Your task to perform on an android device: see sites visited before in the chrome app Image 0: 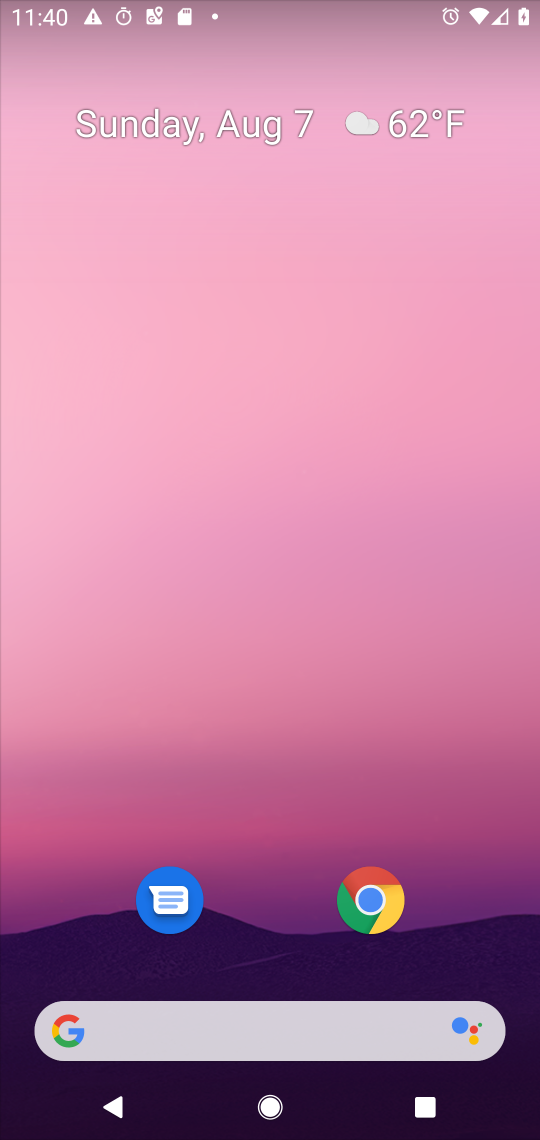
Step 0: press home button
Your task to perform on an android device: see sites visited before in the chrome app Image 1: 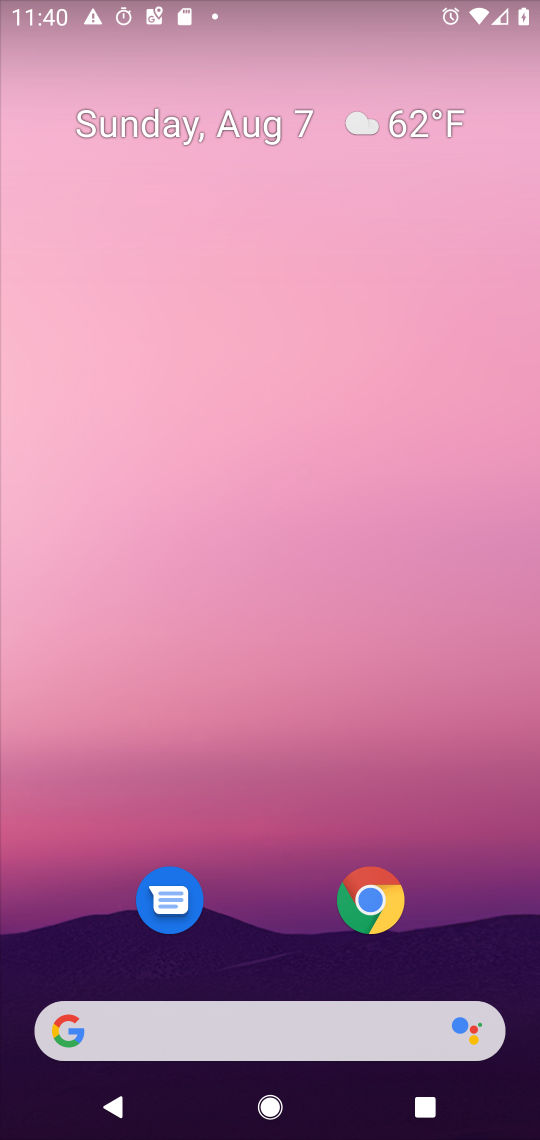
Step 1: click (369, 902)
Your task to perform on an android device: see sites visited before in the chrome app Image 2: 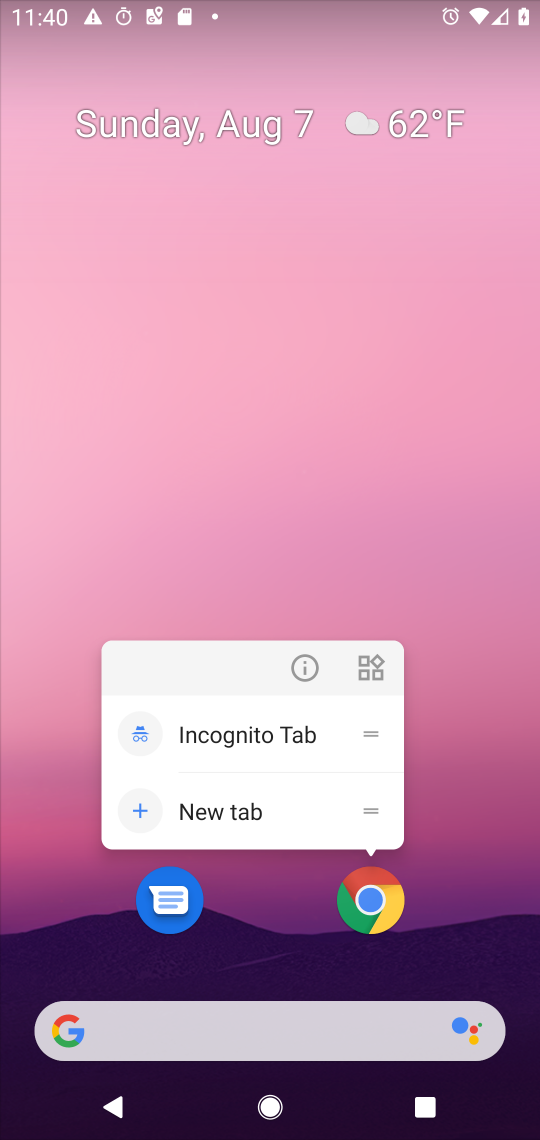
Step 2: click (364, 897)
Your task to perform on an android device: see sites visited before in the chrome app Image 3: 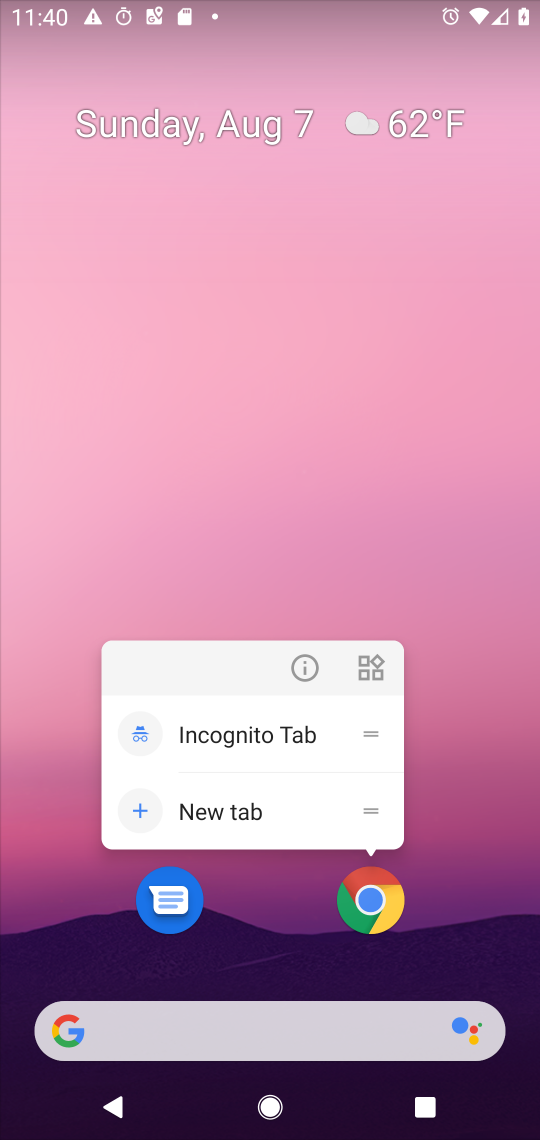
Step 3: click (420, 937)
Your task to perform on an android device: see sites visited before in the chrome app Image 4: 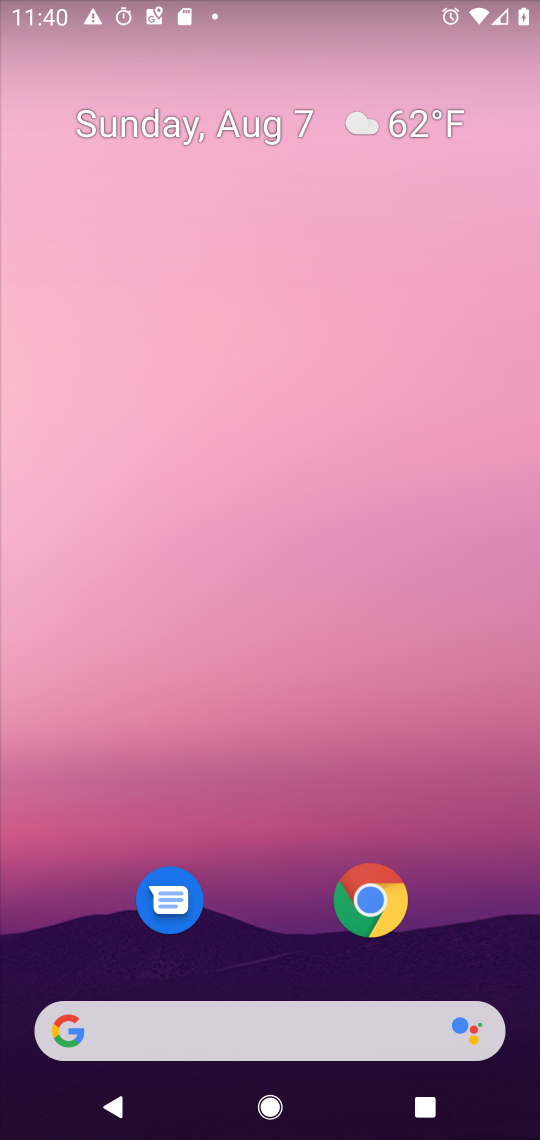
Step 4: drag from (453, 962) to (462, 90)
Your task to perform on an android device: see sites visited before in the chrome app Image 5: 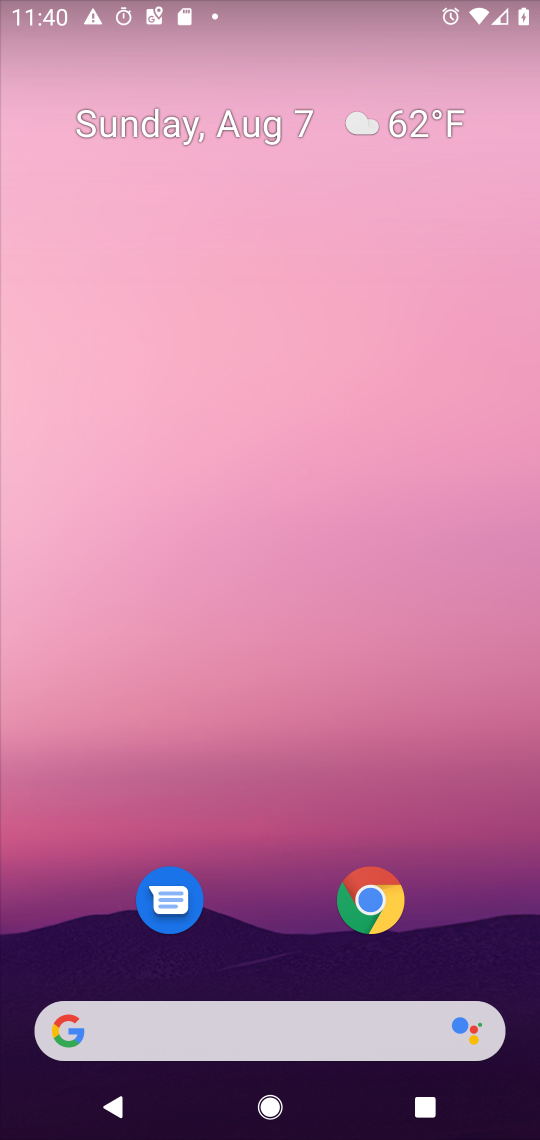
Step 5: drag from (460, 959) to (480, 29)
Your task to perform on an android device: see sites visited before in the chrome app Image 6: 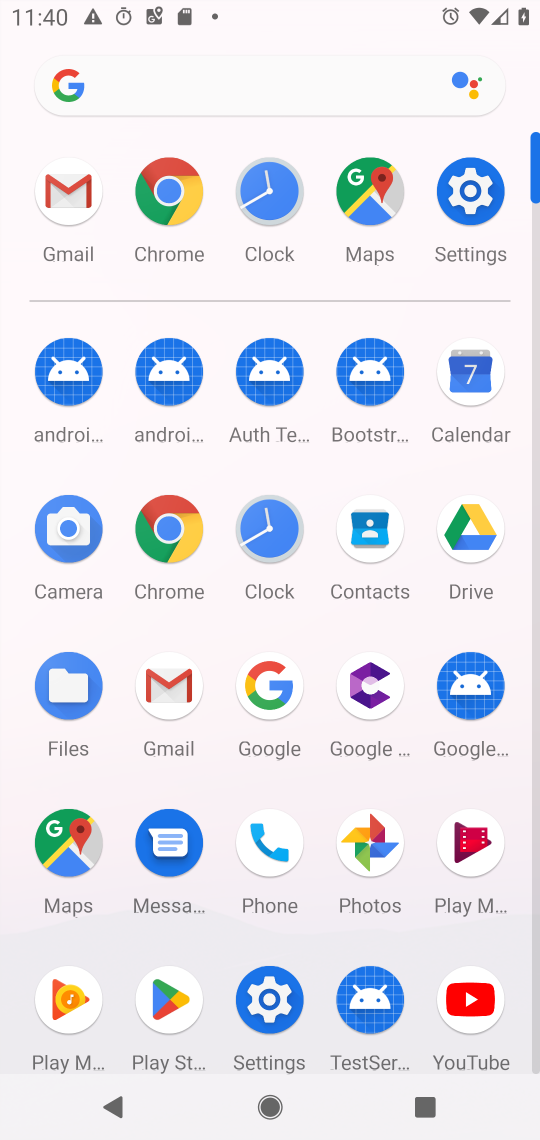
Step 6: click (164, 177)
Your task to perform on an android device: see sites visited before in the chrome app Image 7: 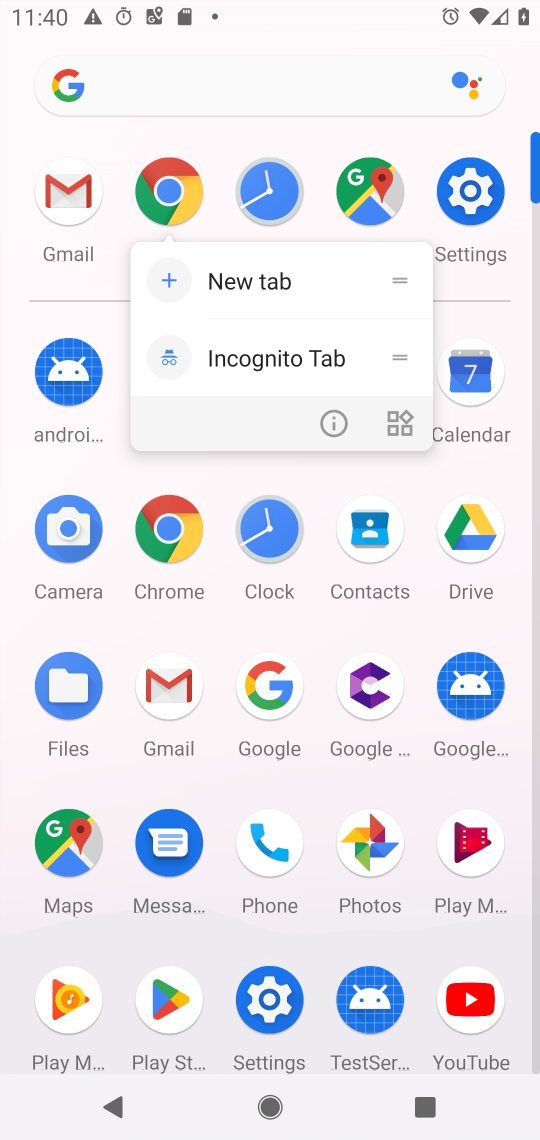
Step 7: click (167, 185)
Your task to perform on an android device: see sites visited before in the chrome app Image 8: 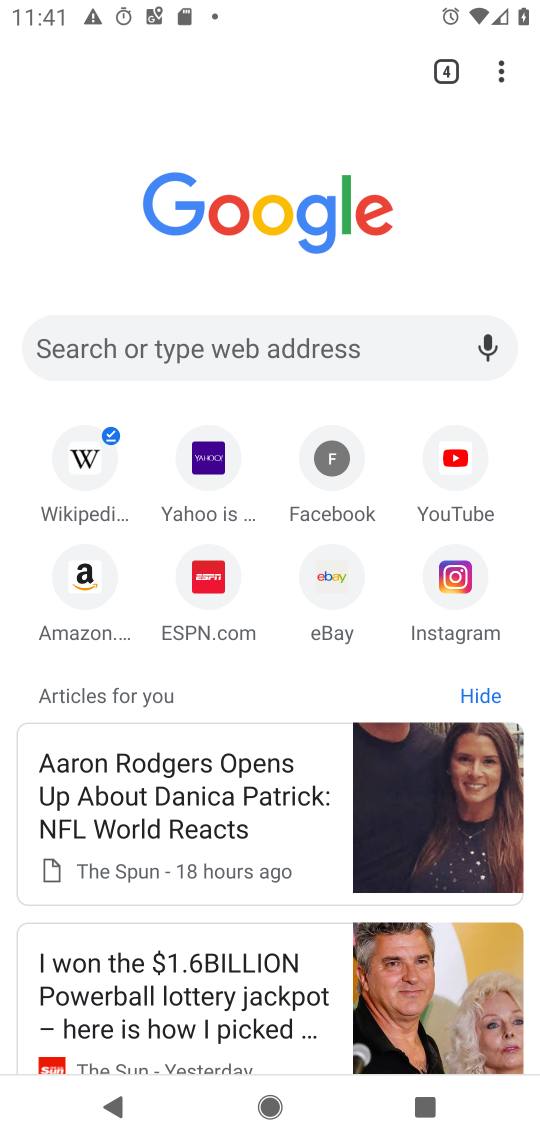
Step 8: click (499, 64)
Your task to perform on an android device: see sites visited before in the chrome app Image 9: 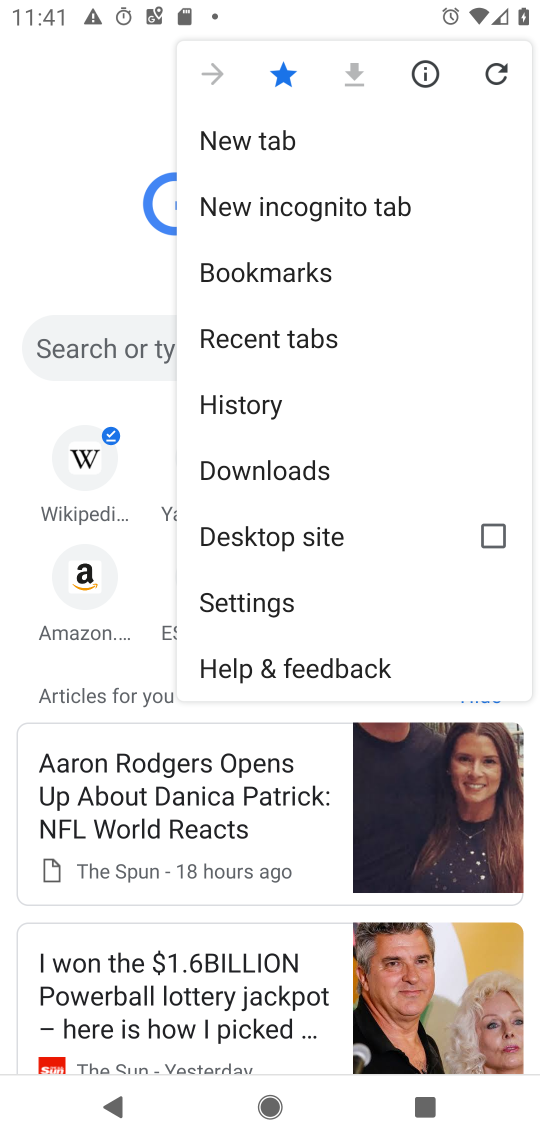
Step 9: click (304, 399)
Your task to perform on an android device: see sites visited before in the chrome app Image 10: 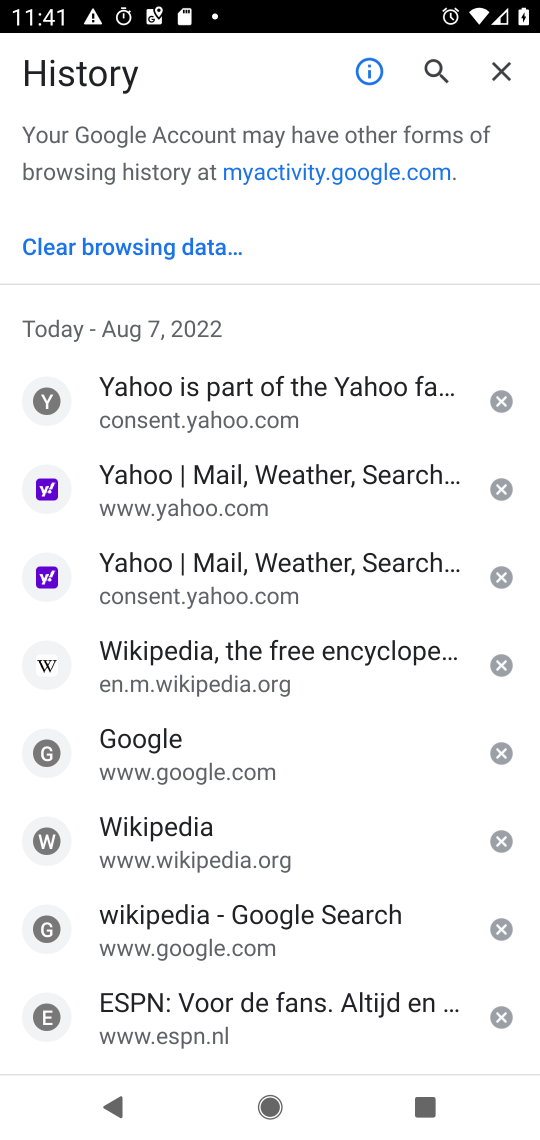
Step 10: task complete